Your task to perform on an android device: Search for flights from Boston to Zurich Image 0: 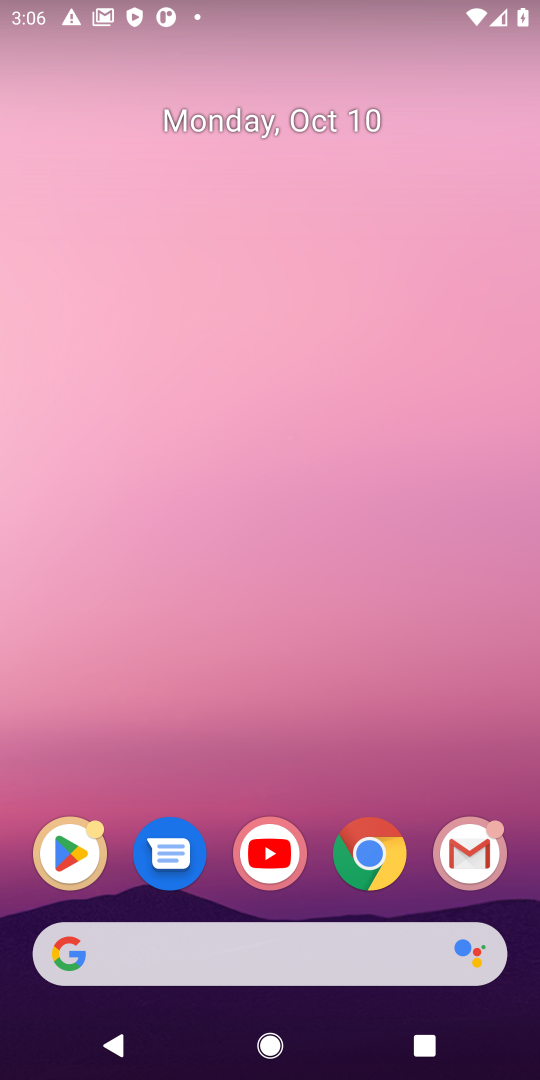
Step 0: click (368, 845)
Your task to perform on an android device: Search for flights from Boston to Zurich Image 1: 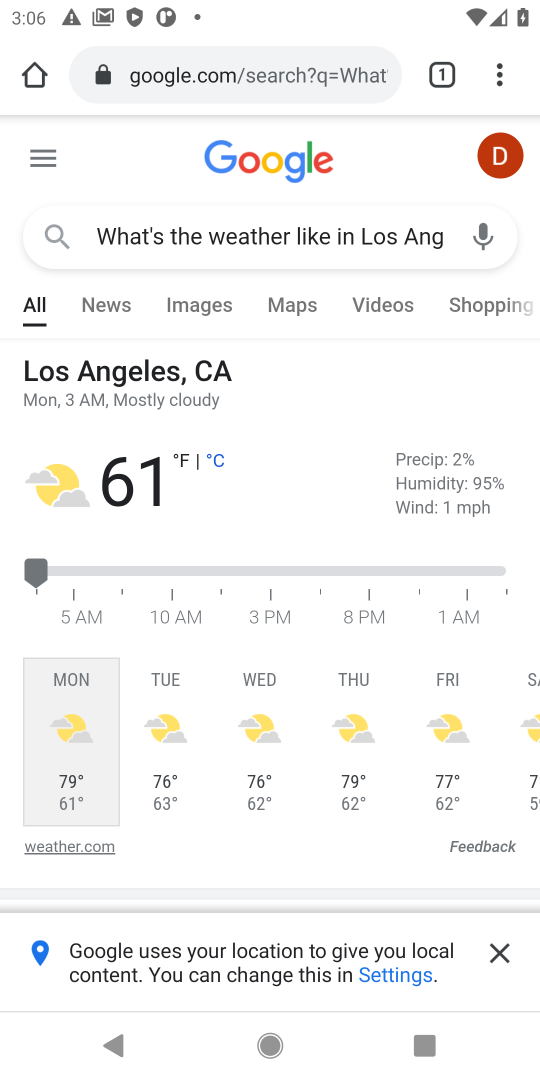
Step 1: click (277, 64)
Your task to perform on an android device: Search for flights from Boston to Zurich Image 2: 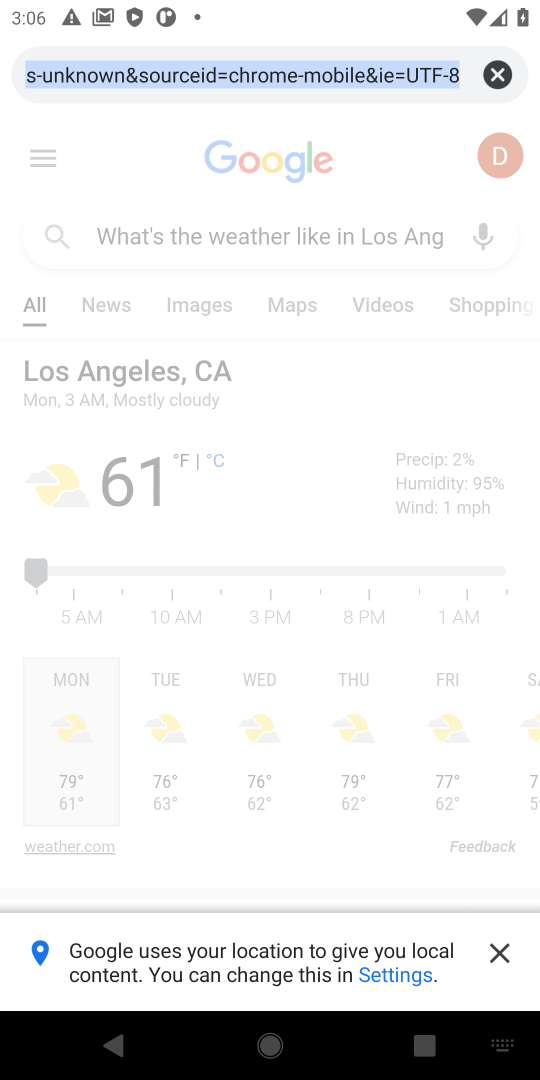
Step 2: type "flights from Boston to Zurich"
Your task to perform on an android device: Search for flights from Boston to Zurich Image 3: 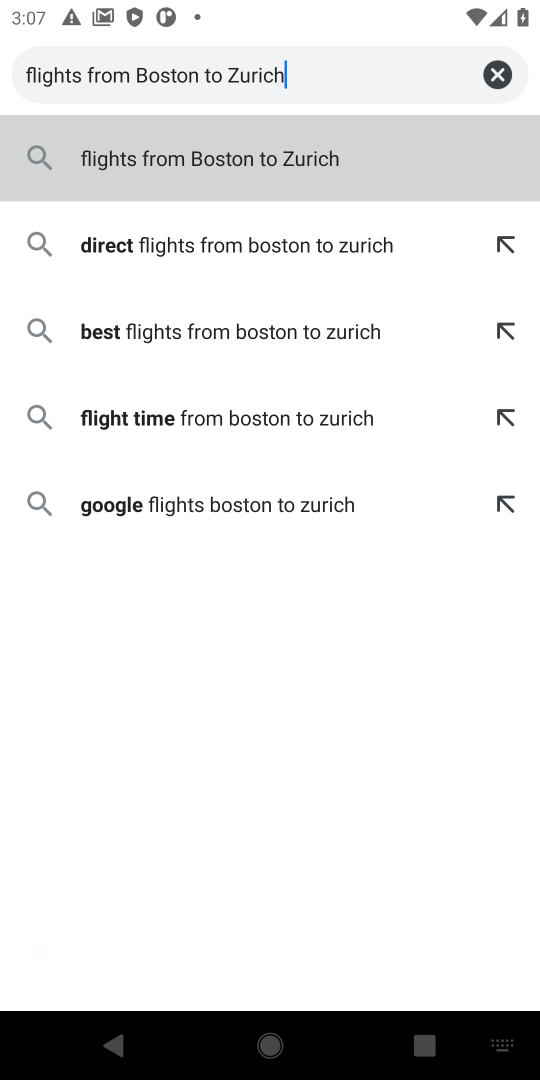
Step 3: click (256, 157)
Your task to perform on an android device: Search for flights from Boston to Zurich Image 4: 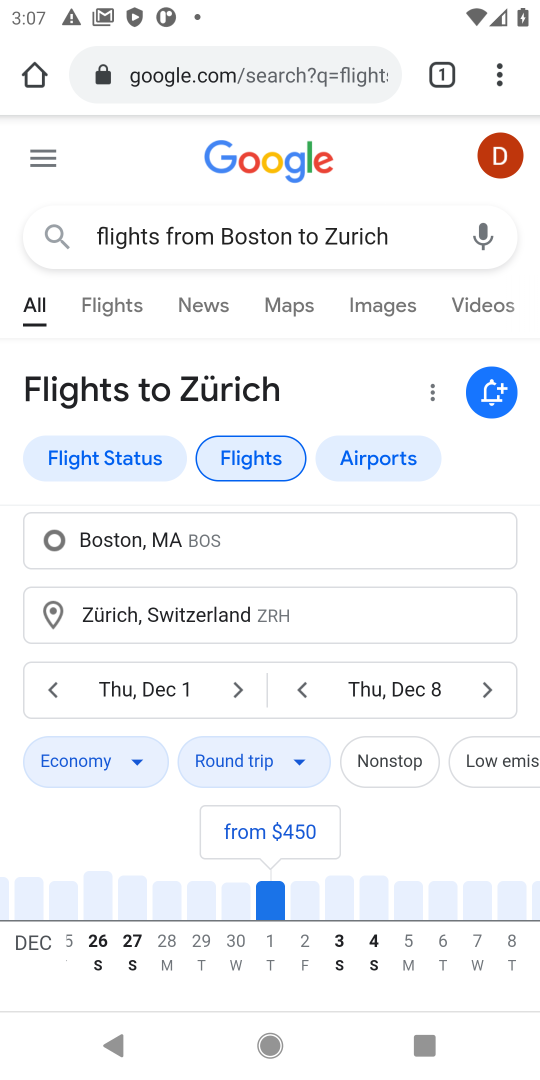
Step 4: task complete